Your task to perform on an android device: Do I have any events today? Image 0: 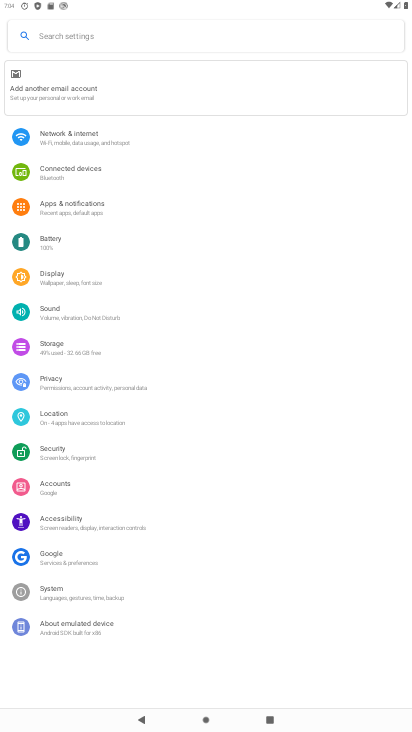
Step 0: press home button
Your task to perform on an android device: Do I have any events today? Image 1: 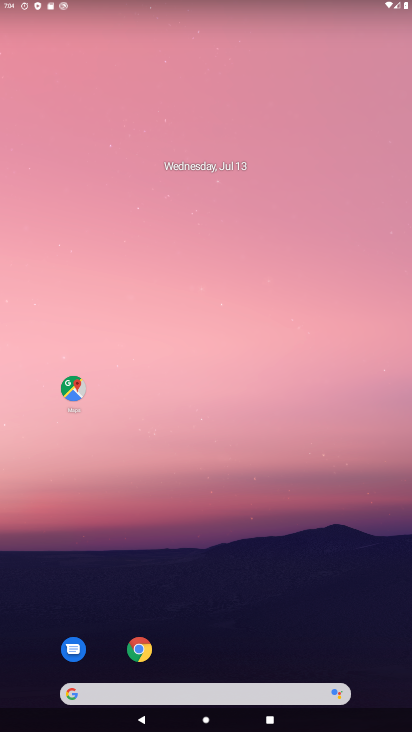
Step 1: drag from (264, 692) to (149, 296)
Your task to perform on an android device: Do I have any events today? Image 2: 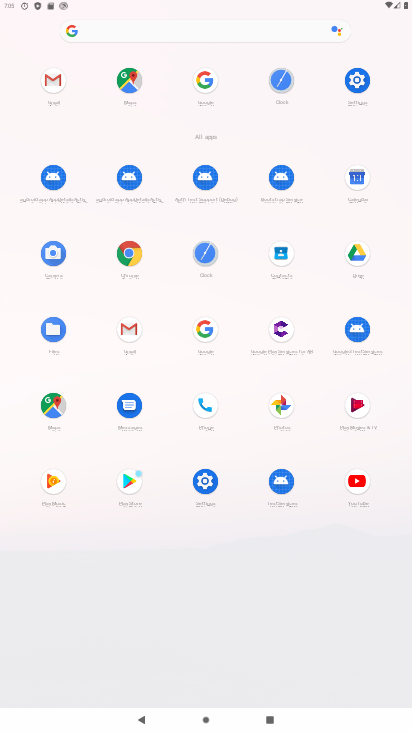
Step 2: click (358, 179)
Your task to perform on an android device: Do I have any events today? Image 3: 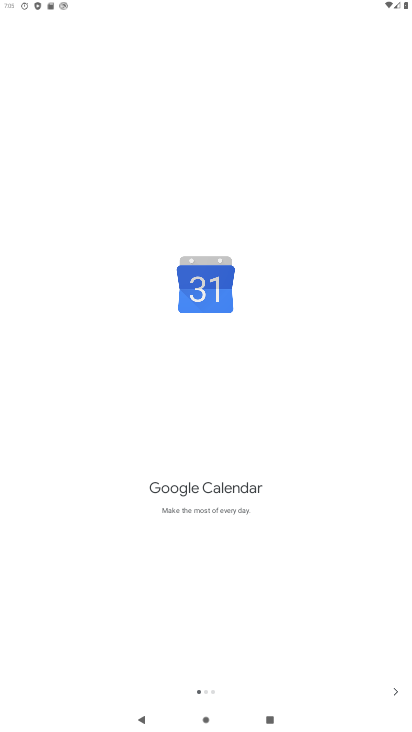
Step 3: click (397, 690)
Your task to perform on an android device: Do I have any events today? Image 4: 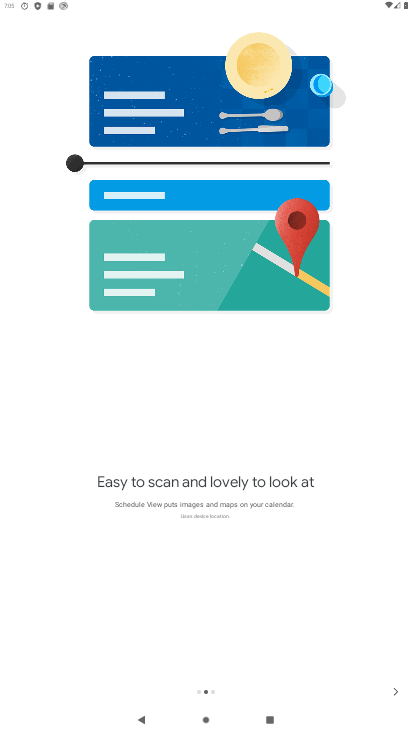
Step 4: click (397, 690)
Your task to perform on an android device: Do I have any events today? Image 5: 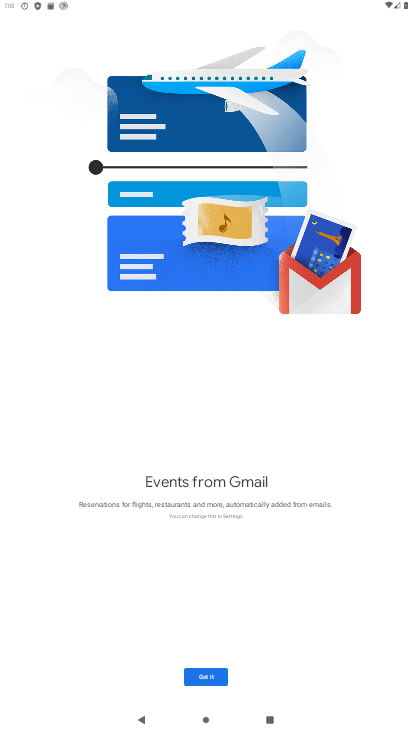
Step 5: click (209, 675)
Your task to perform on an android device: Do I have any events today? Image 6: 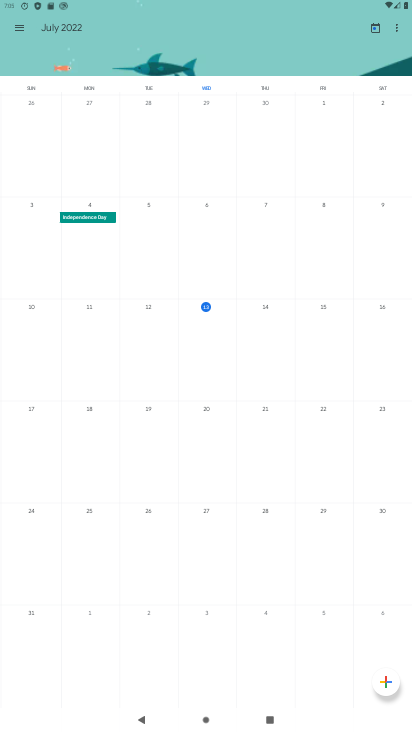
Step 6: click (209, 320)
Your task to perform on an android device: Do I have any events today? Image 7: 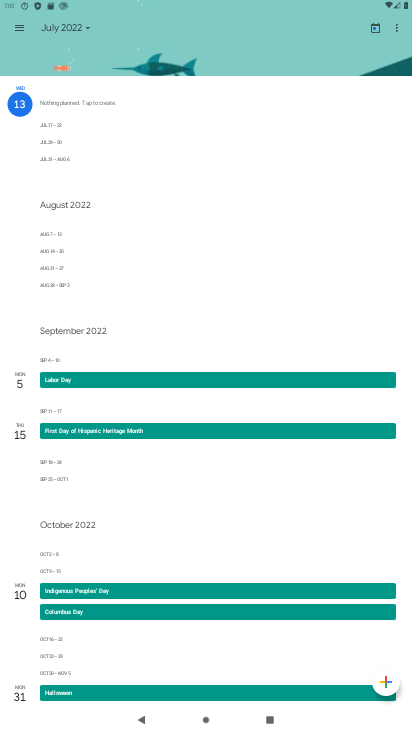
Step 7: task complete